Your task to perform on an android device: Open sound settings Image 0: 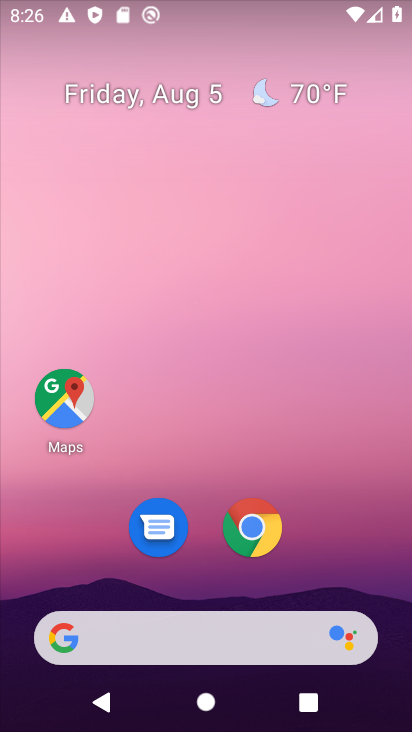
Step 0: drag from (191, 614) to (133, 49)
Your task to perform on an android device: Open sound settings Image 1: 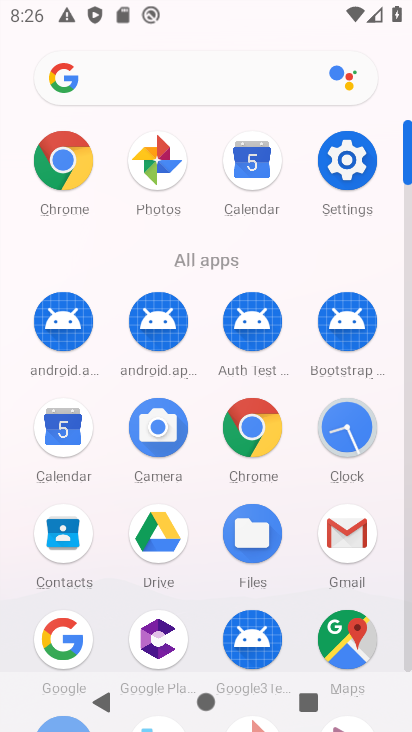
Step 1: click (330, 153)
Your task to perform on an android device: Open sound settings Image 2: 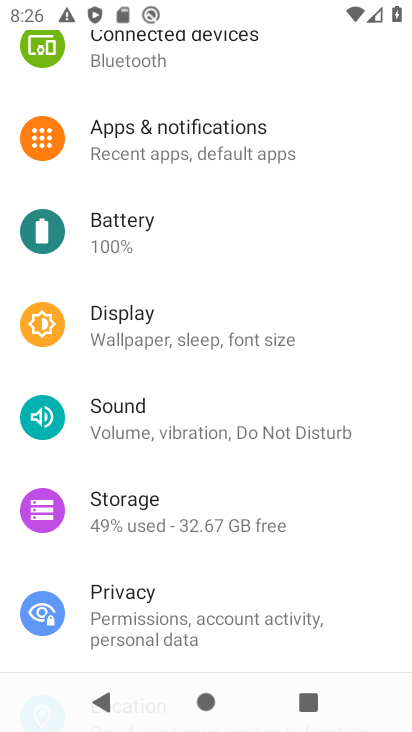
Step 2: click (124, 432)
Your task to perform on an android device: Open sound settings Image 3: 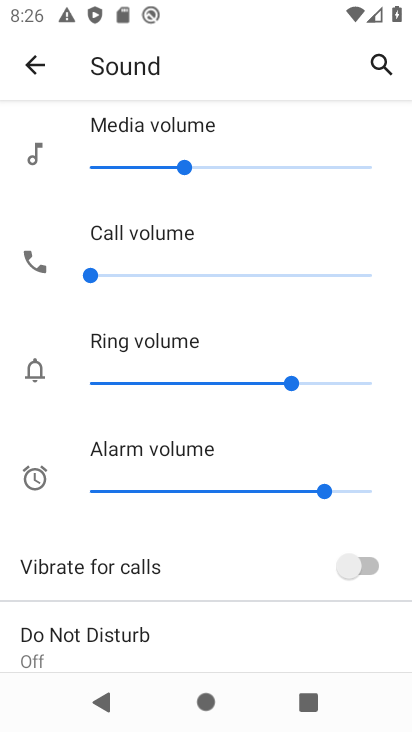
Step 3: task complete